Your task to perform on an android device: Is it going to rain tomorrow? Image 0: 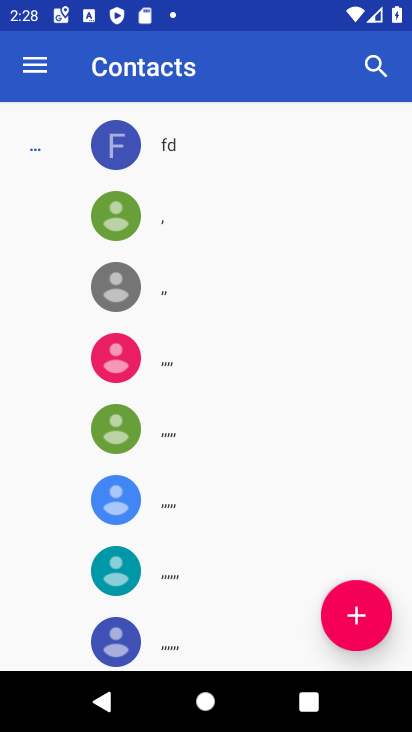
Step 0: press home button
Your task to perform on an android device: Is it going to rain tomorrow? Image 1: 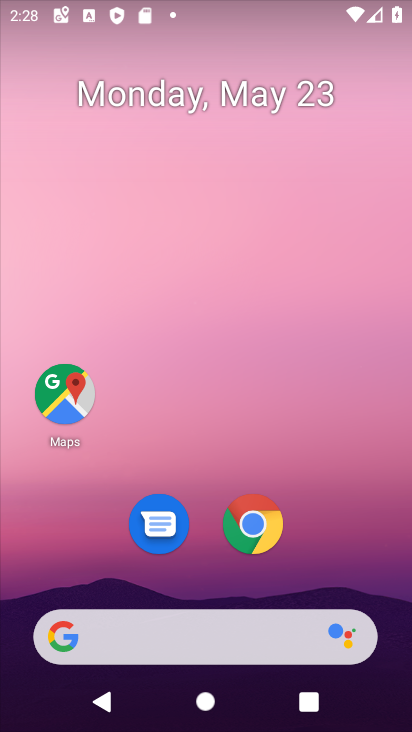
Step 1: click (224, 630)
Your task to perform on an android device: Is it going to rain tomorrow? Image 2: 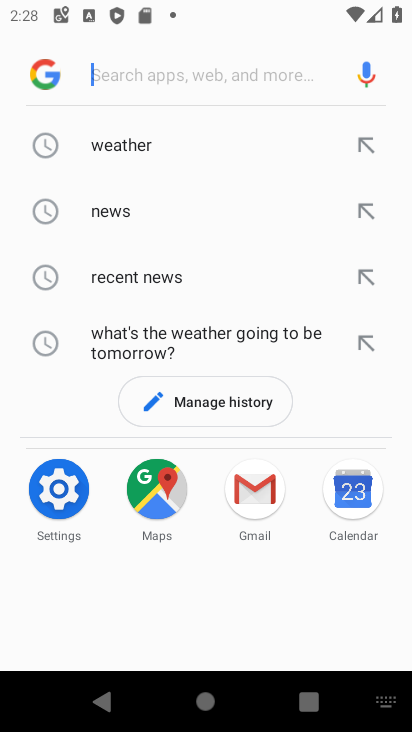
Step 2: click (98, 133)
Your task to perform on an android device: Is it going to rain tomorrow? Image 3: 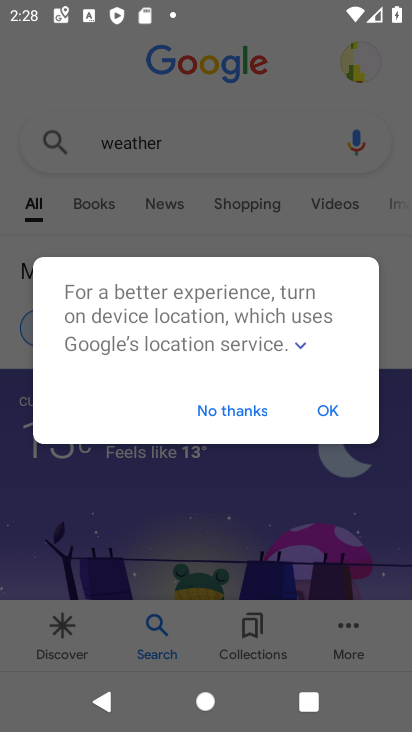
Step 3: click (249, 402)
Your task to perform on an android device: Is it going to rain tomorrow? Image 4: 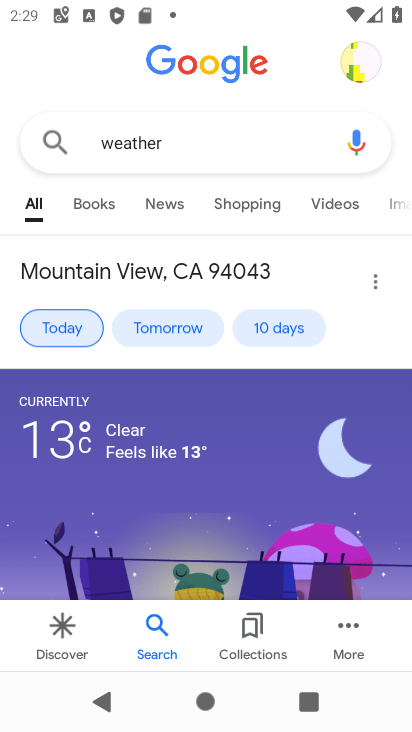
Step 4: click (84, 325)
Your task to perform on an android device: Is it going to rain tomorrow? Image 5: 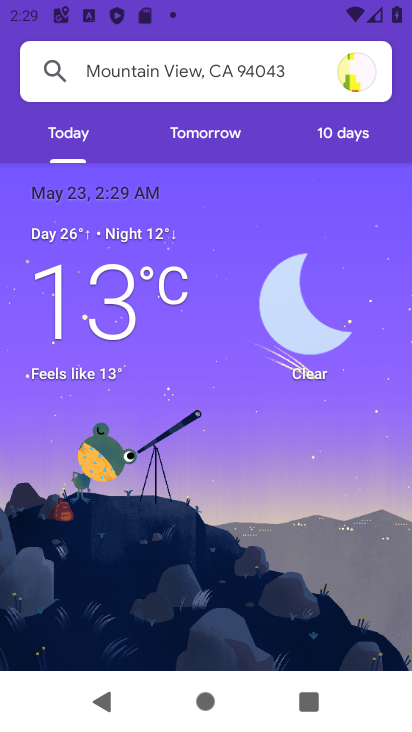
Step 5: click (205, 130)
Your task to perform on an android device: Is it going to rain tomorrow? Image 6: 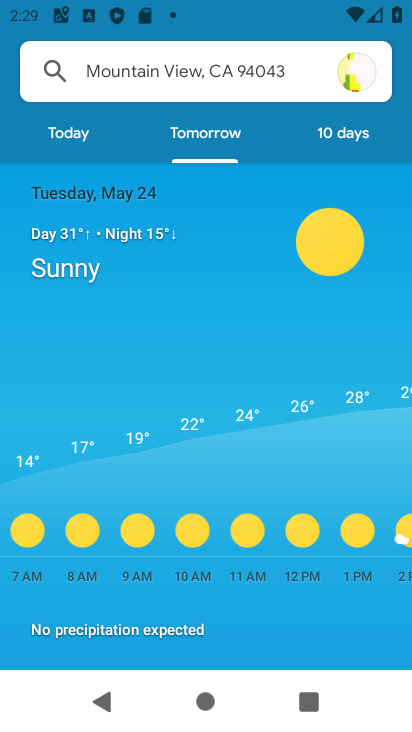
Step 6: task complete